Your task to perform on an android device: turn on the 12-hour format for clock Image 0: 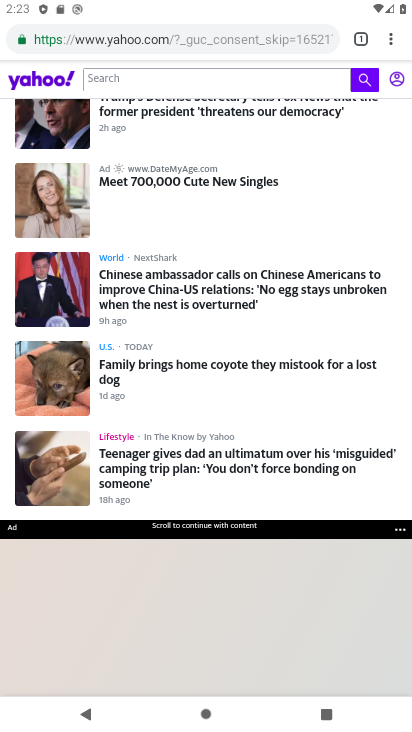
Step 0: press home button
Your task to perform on an android device: turn on the 12-hour format for clock Image 1: 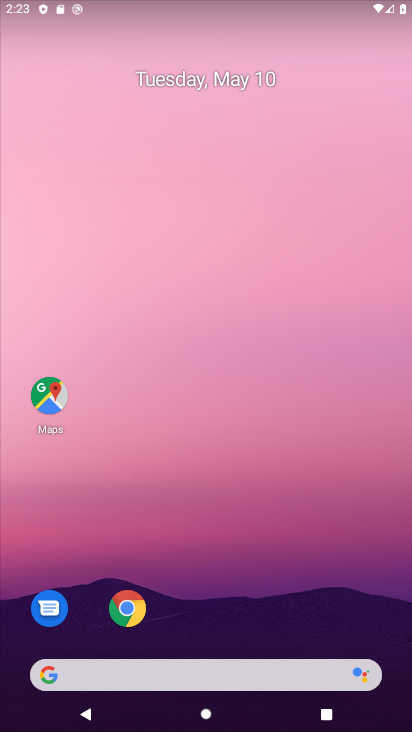
Step 1: drag from (393, 656) to (306, 173)
Your task to perform on an android device: turn on the 12-hour format for clock Image 2: 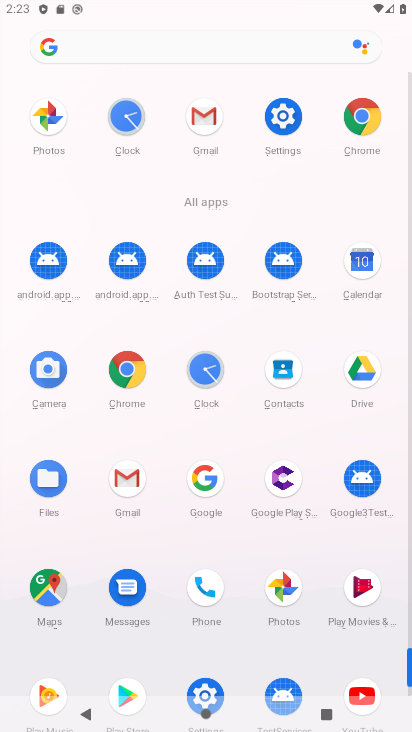
Step 2: click (203, 368)
Your task to perform on an android device: turn on the 12-hour format for clock Image 3: 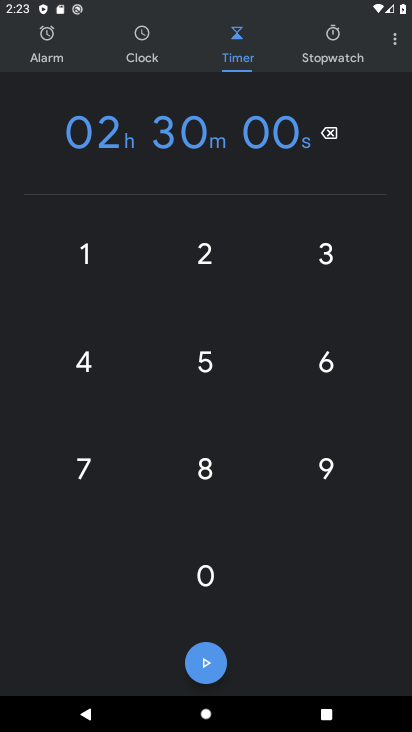
Step 3: click (393, 43)
Your task to perform on an android device: turn on the 12-hour format for clock Image 4: 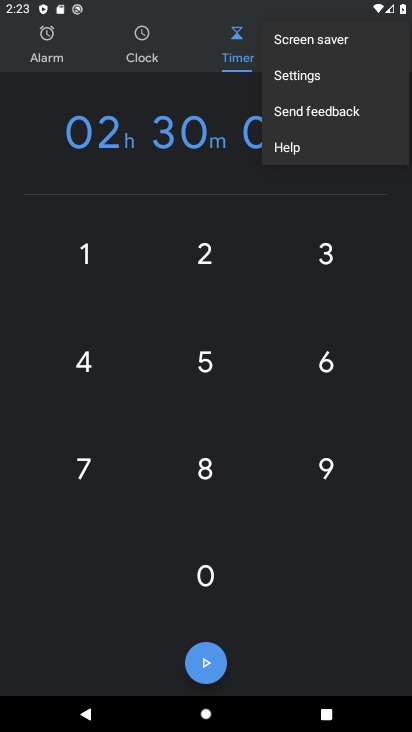
Step 4: click (292, 73)
Your task to perform on an android device: turn on the 12-hour format for clock Image 5: 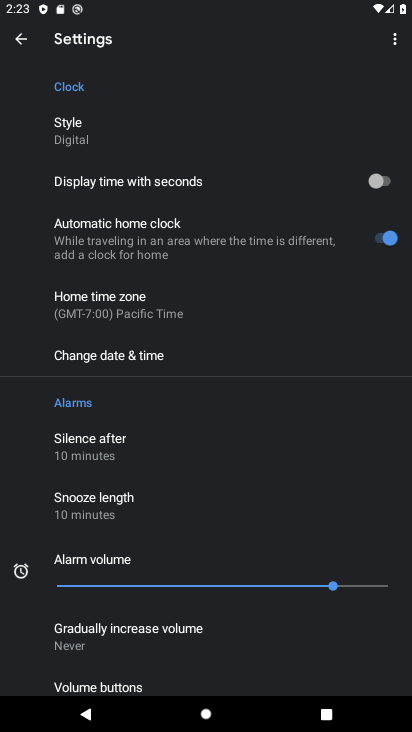
Step 5: click (132, 348)
Your task to perform on an android device: turn on the 12-hour format for clock Image 6: 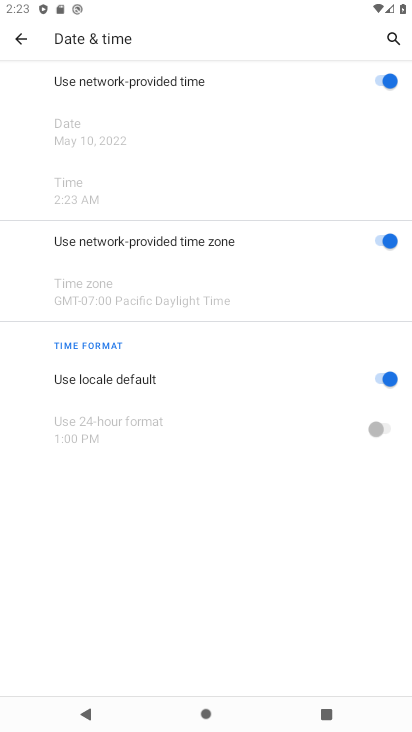
Step 6: task complete